Your task to perform on an android device: Open battery settings Image 0: 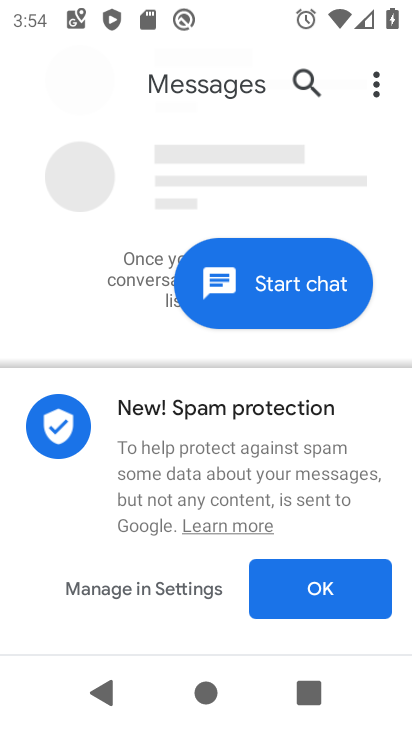
Step 0: press home button
Your task to perform on an android device: Open battery settings Image 1: 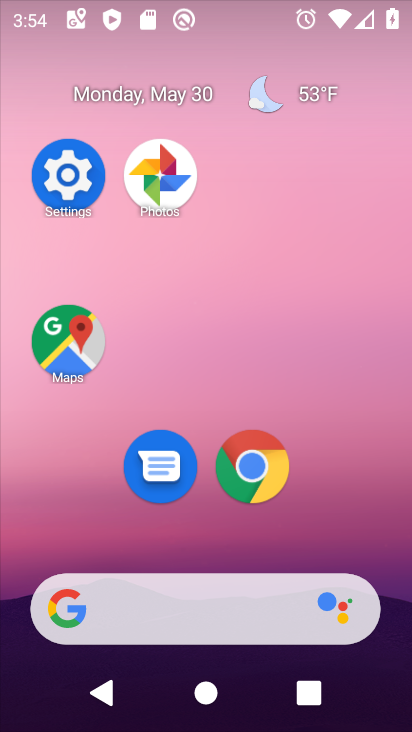
Step 1: click (73, 202)
Your task to perform on an android device: Open battery settings Image 2: 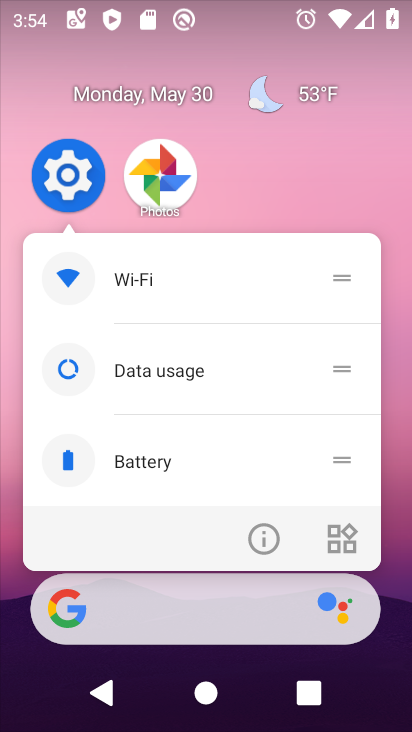
Step 2: click (83, 199)
Your task to perform on an android device: Open battery settings Image 3: 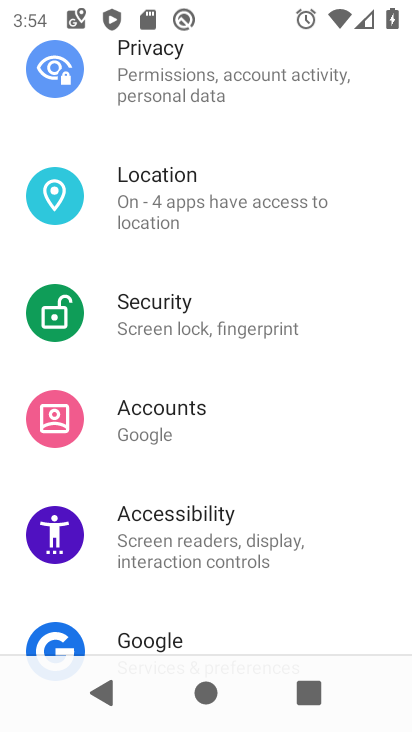
Step 3: drag from (242, 173) to (271, 588)
Your task to perform on an android device: Open battery settings Image 4: 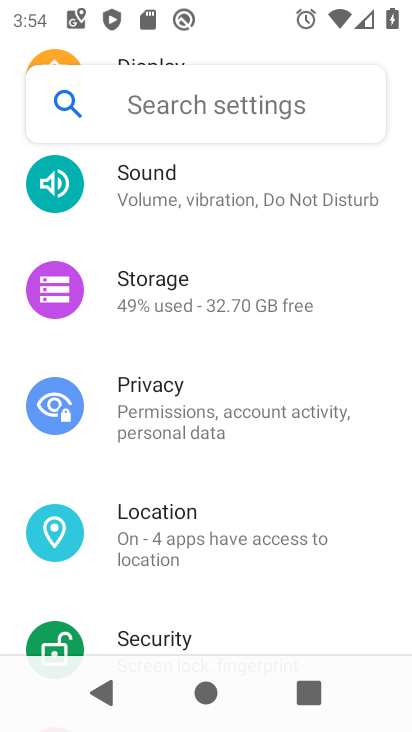
Step 4: drag from (268, 231) to (272, 572)
Your task to perform on an android device: Open battery settings Image 5: 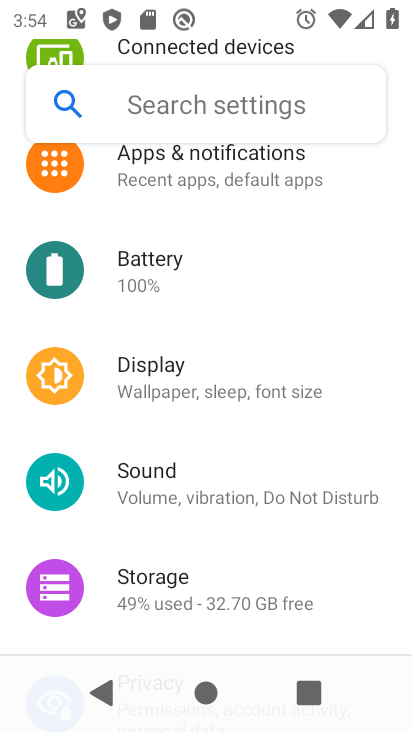
Step 5: click (206, 271)
Your task to perform on an android device: Open battery settings Image 6: 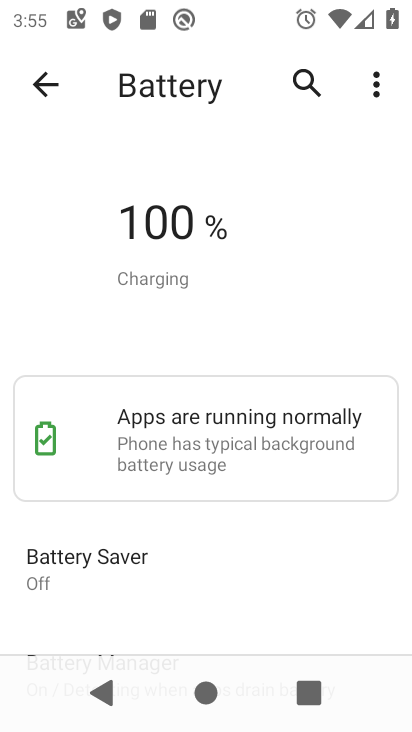
Step 6: task complete